Your task to perform on an android device: Go to CNN.com Image 0: 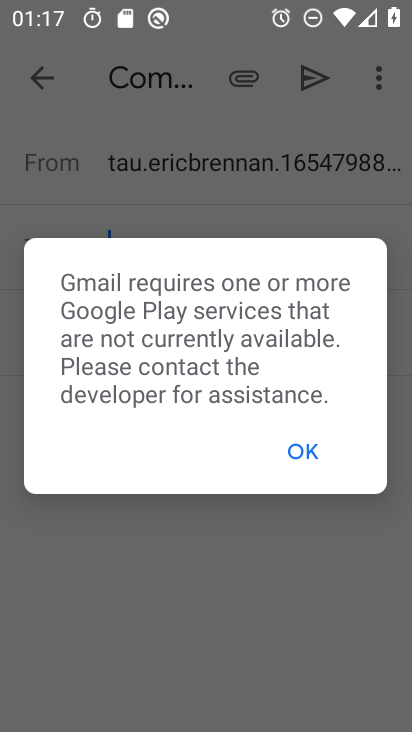
Step 0: click (316, 441)
Your task to perform on an android device: Go to CNN.com Image 1: 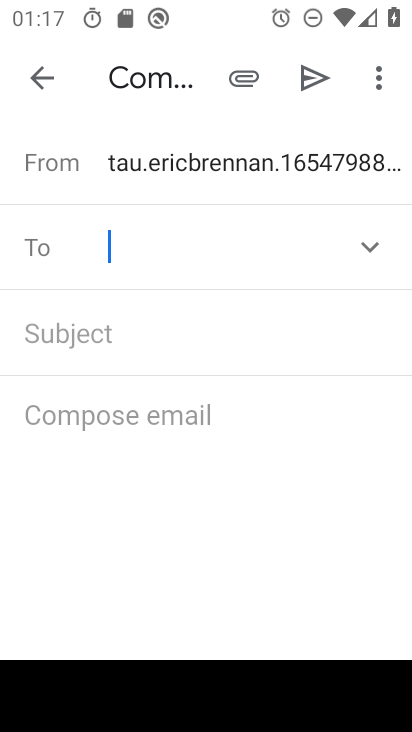
Step 1: press back button
Your task to perform on an android device: Go to CNN.com Image 2: 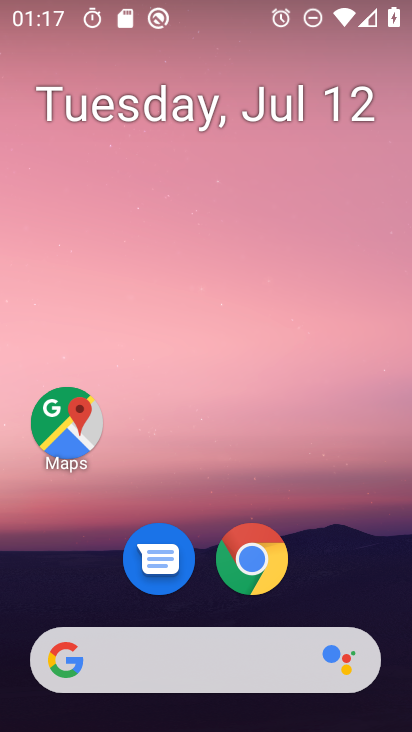
Step 2: click (249, 540)
Your task to perform on an android device: Go to CNN.com Image 3: 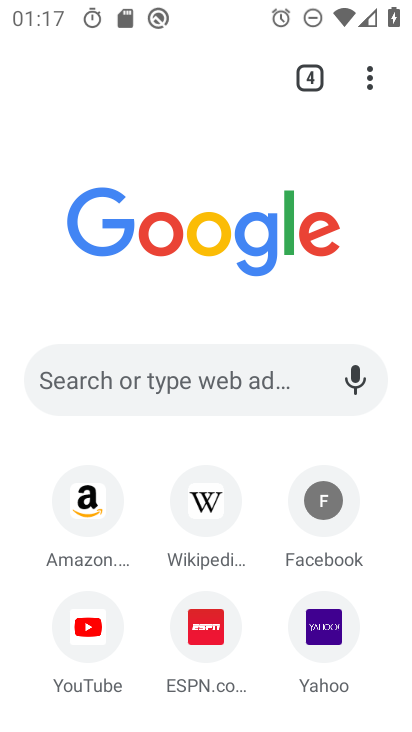
Step 3: drag from (220, 689) to (198, 727)
Your task to perform on an android device: Go to CNN.com Image 4: 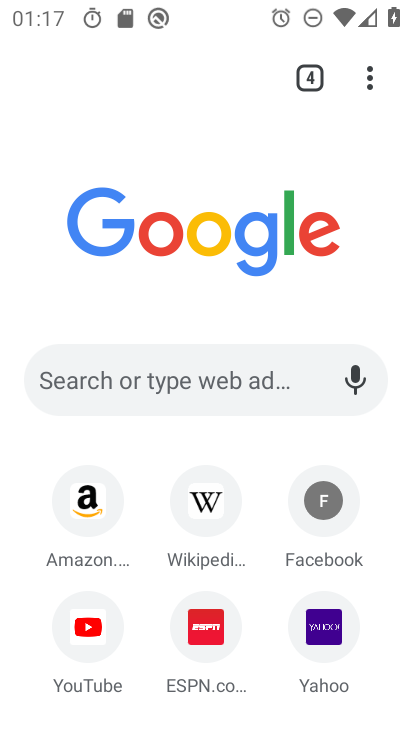
Step 4: click (96, 381)
Your task to perform on an android device: Go to CNN.com Image 5: 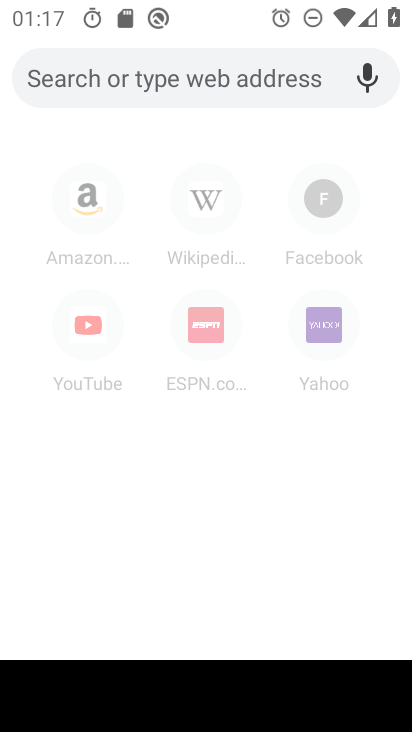
Step 5: type "cnn.com"
Your task to perform on an android device: Go to CNN.com Image 6: 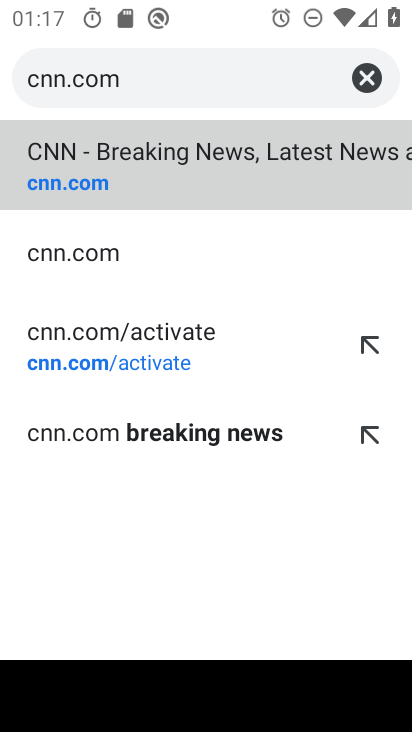
Step 6: click (158, 170)
Your task to perform on an android device: Go to CNN.com Image 7: 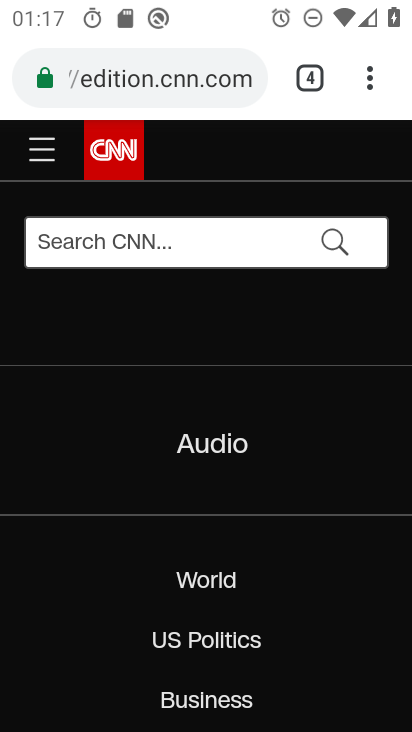
Step 7: task complete